Your task to perform on an android device: Search for Mexican restaurants on Maps Image 0: 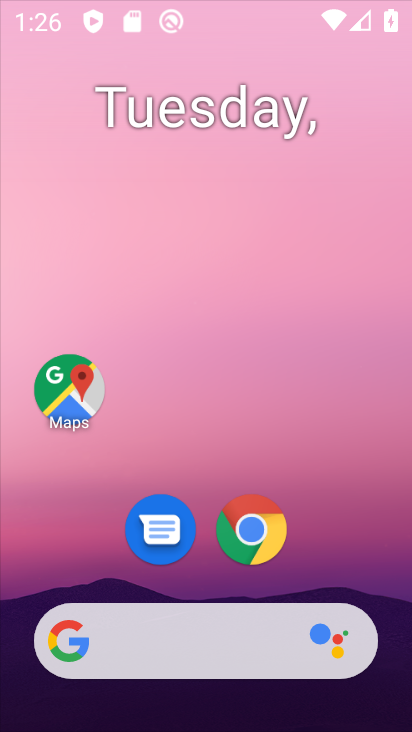
Step 0: drag from (318, 227) to (288, 46)
Your task to perform on an android device: Search for Mexican restaurants on Maps Image 1: 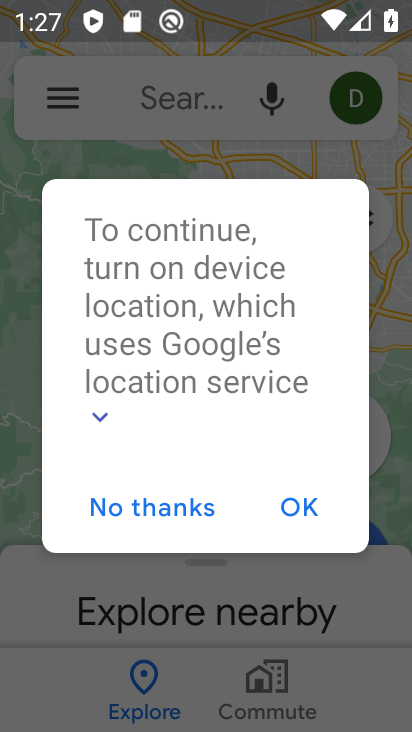
Step 1: press home button
Your task to perform on an android device: Search for Mexican restaurants on Maps Image 2: 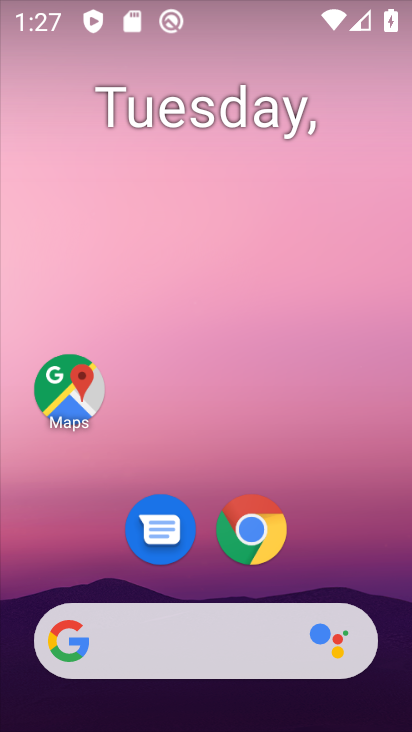
Step 2: drag from (384, 627) to (263, 66)
Your task to perform on an android device: Search for Mexican restaurants on Maps Image 3: 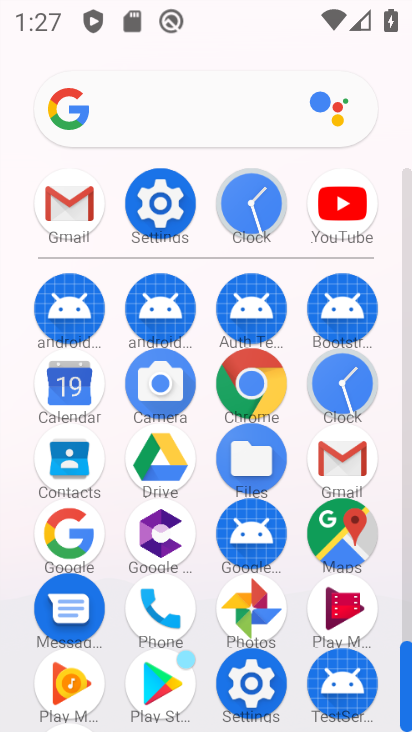
Step 3: click (346, 533)
Your task to perform on an android device: Search for Mexican restaurants on Maps Image 4: 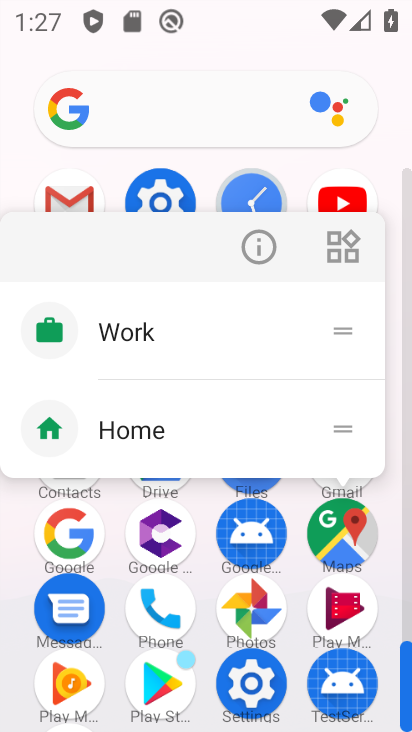
Step 4: click (347, 534)
Your task to perform on an android device: Search for Mexican restaurants on Maps Image 5: 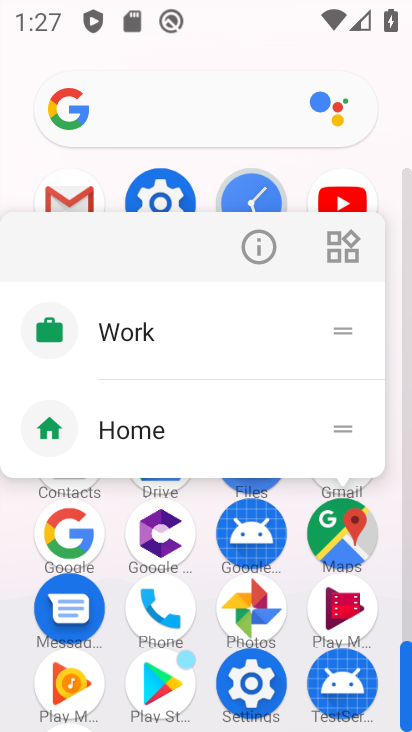
Step 5: click (347, 534)
Your task to perform on an android device: Search for Mexican restaurants on Maps Image 6: 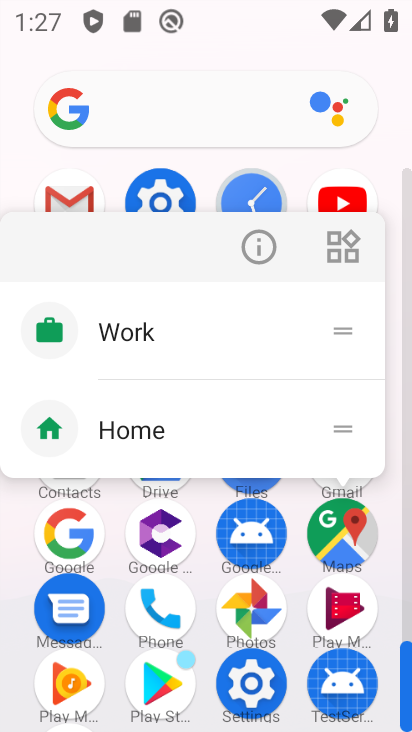
Step 6: click (346, 544)
Your task to perform on an android device: Search for Mexican restaurants on Maps Image 7: 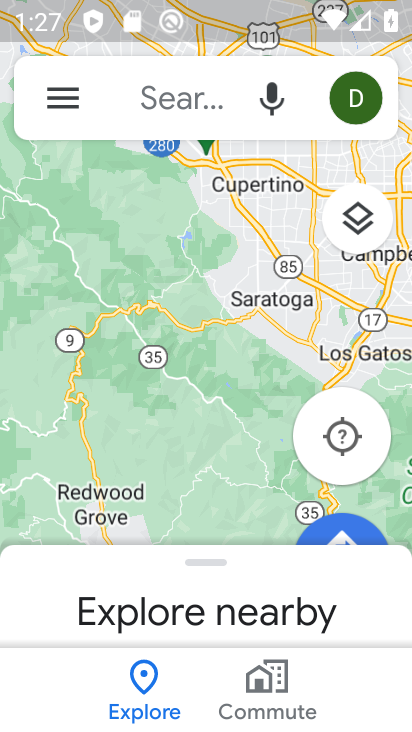
Step 7: click (158, 107)
Your task to perform on an android device: Search for Mexican restaurants on Maps Image 8: 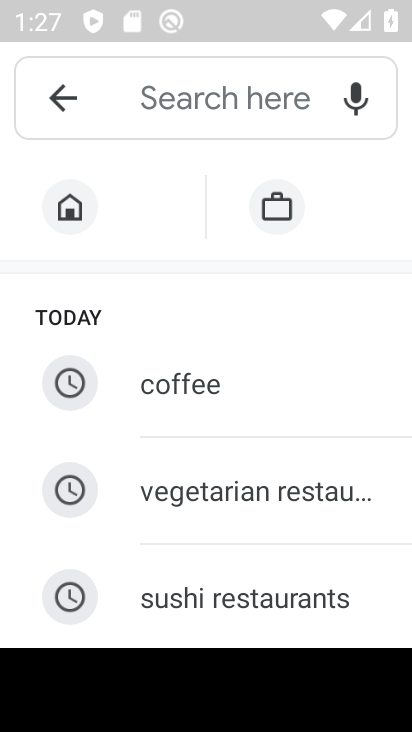
Step 8: drag from (185, 600) to (172, 197)
Your task to perform on an android device: Search for Mexican restaurants on Maps Image 9: 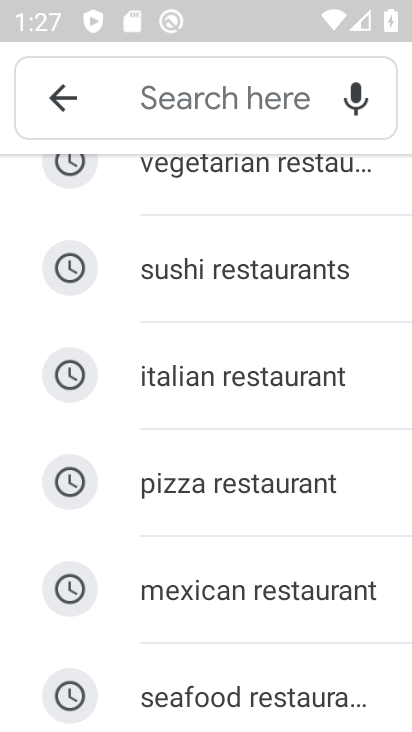
Step 9: click (244, 584)
Your task to perform on an android device: Search for Mexican restaurants on Maps Image 10: 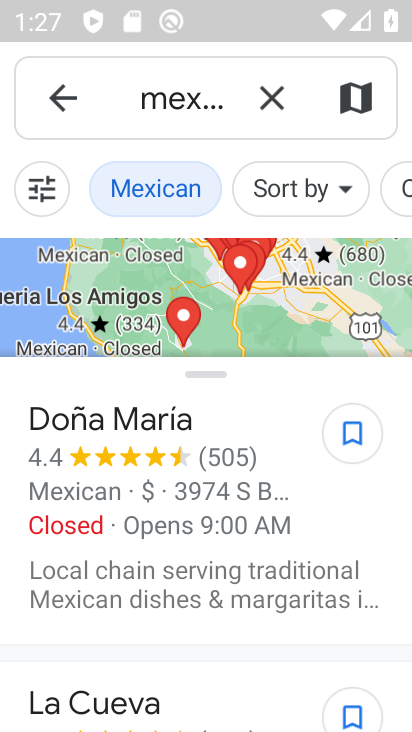
Step 10: task complete